Your task to perform on an android device: turn on airplane mode Image 0: 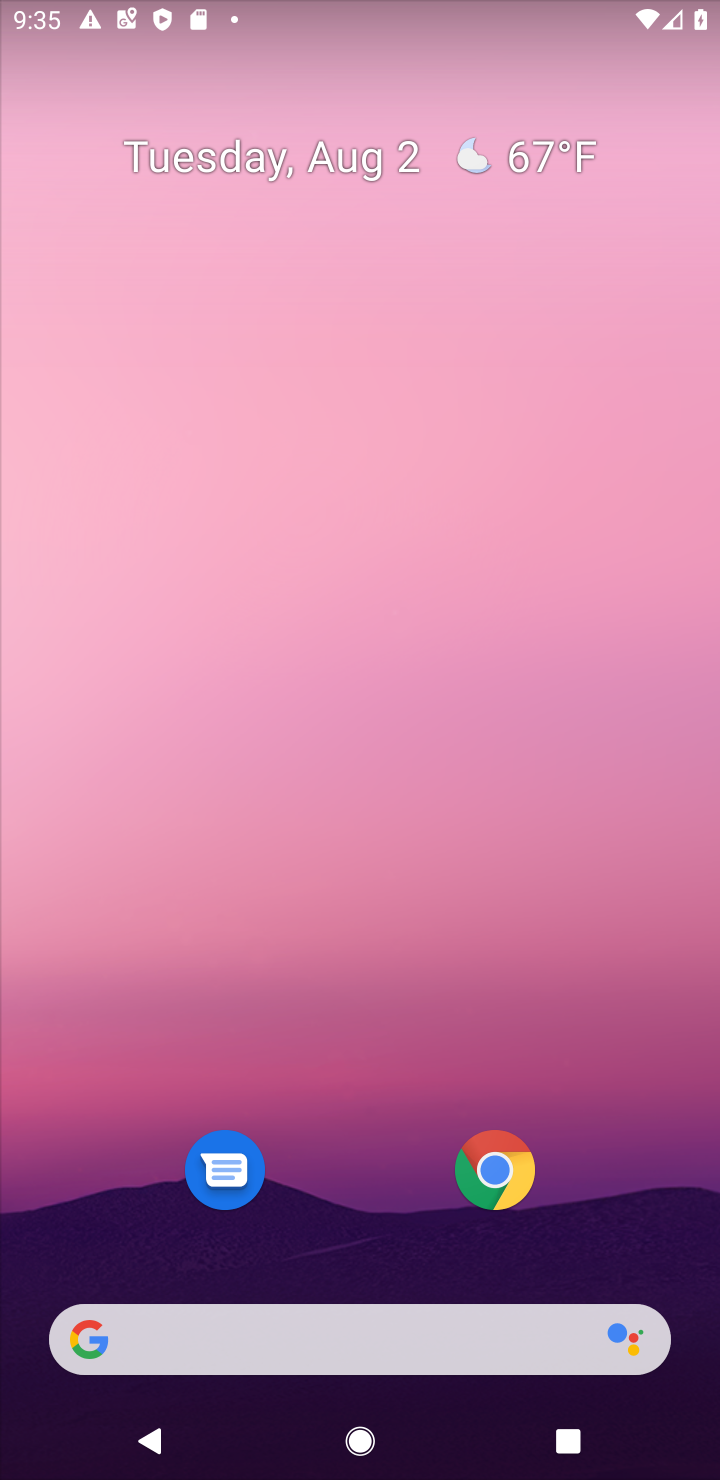
Step 0: drag from (328, 1004) to (328, 693)
Your task to perform on an android device: turn on airplane mode Image 1: 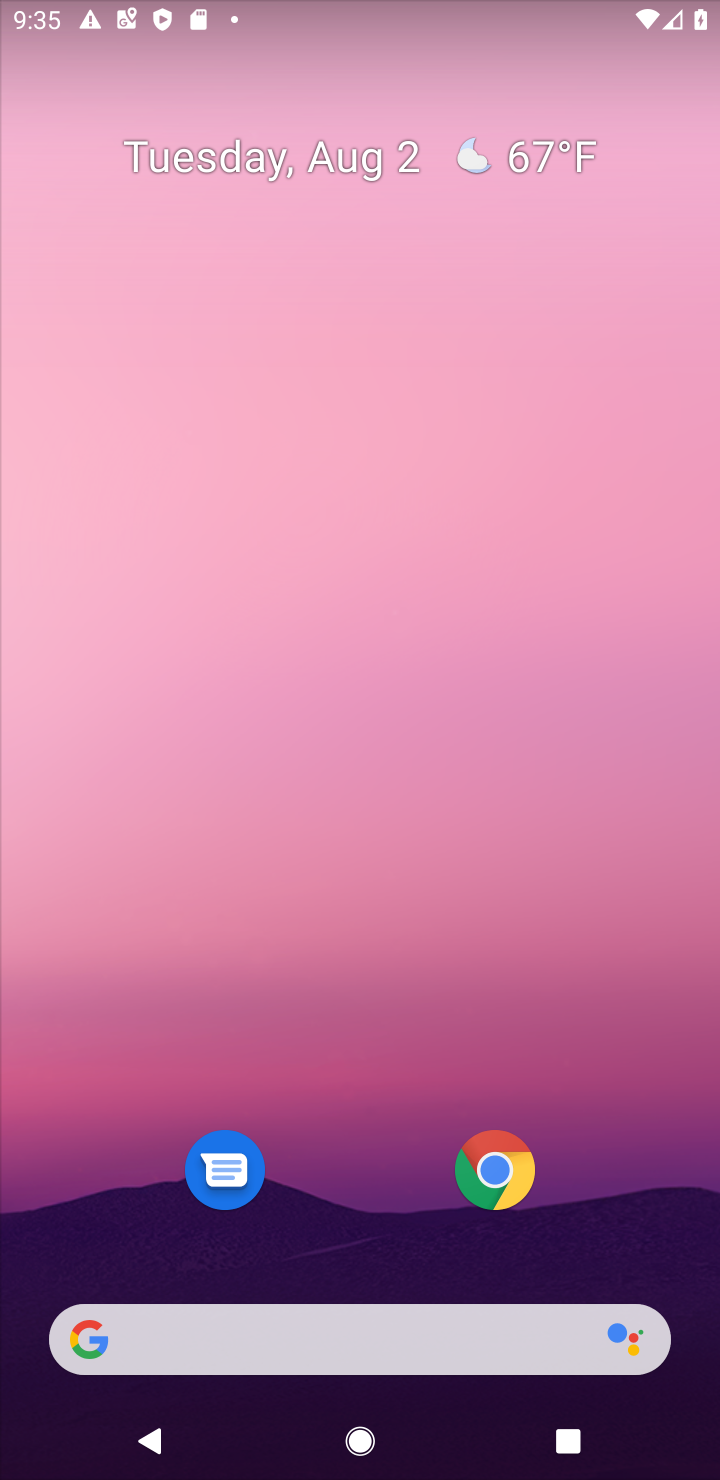
Step 1: drag from (362, 1169) to (369, 12)
Your task to perform on an android device: turn on airplane mode Image 2: 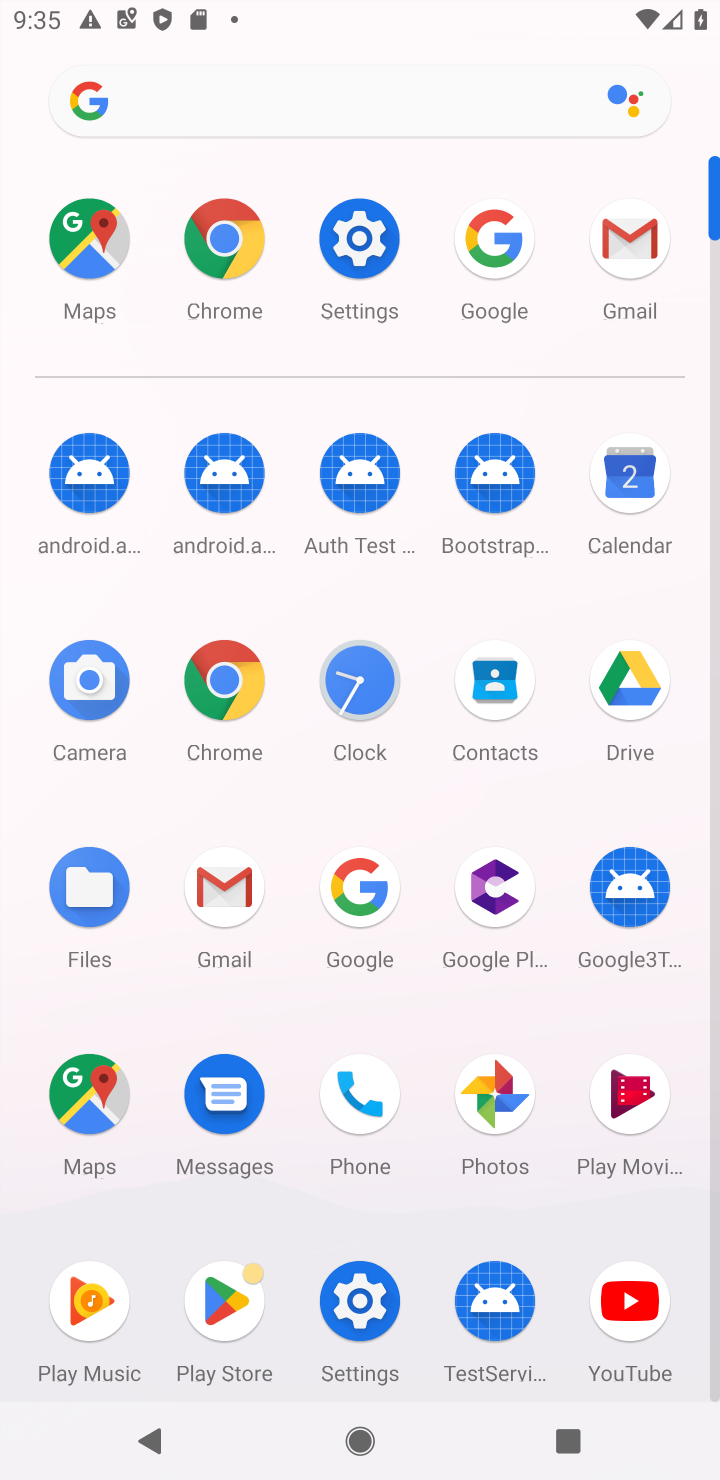
Step 2: click (368, 229)
Your task to perform on an android device: turn on airplane mode Image 3: 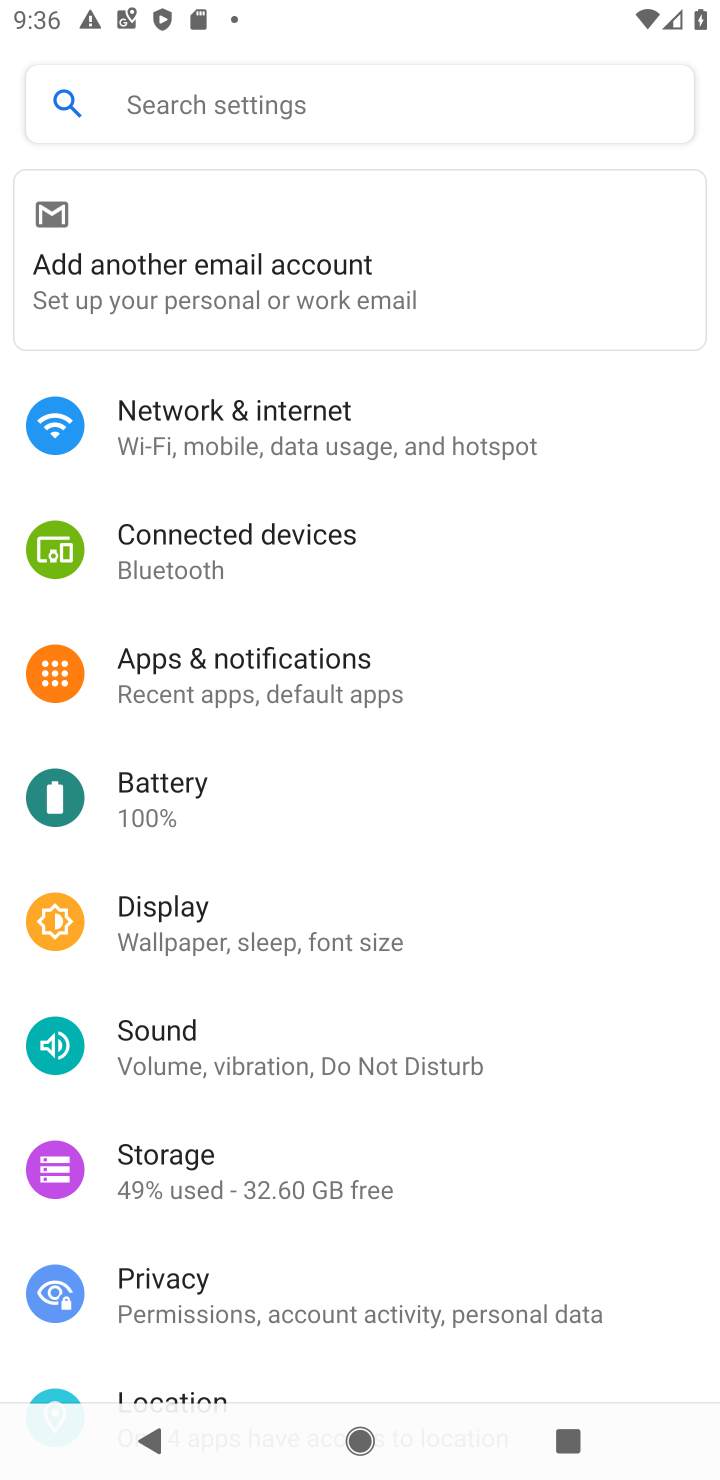
Step 3: click (178, 416)
Your task to perform on an android device: turn on airplane mode Image 4: 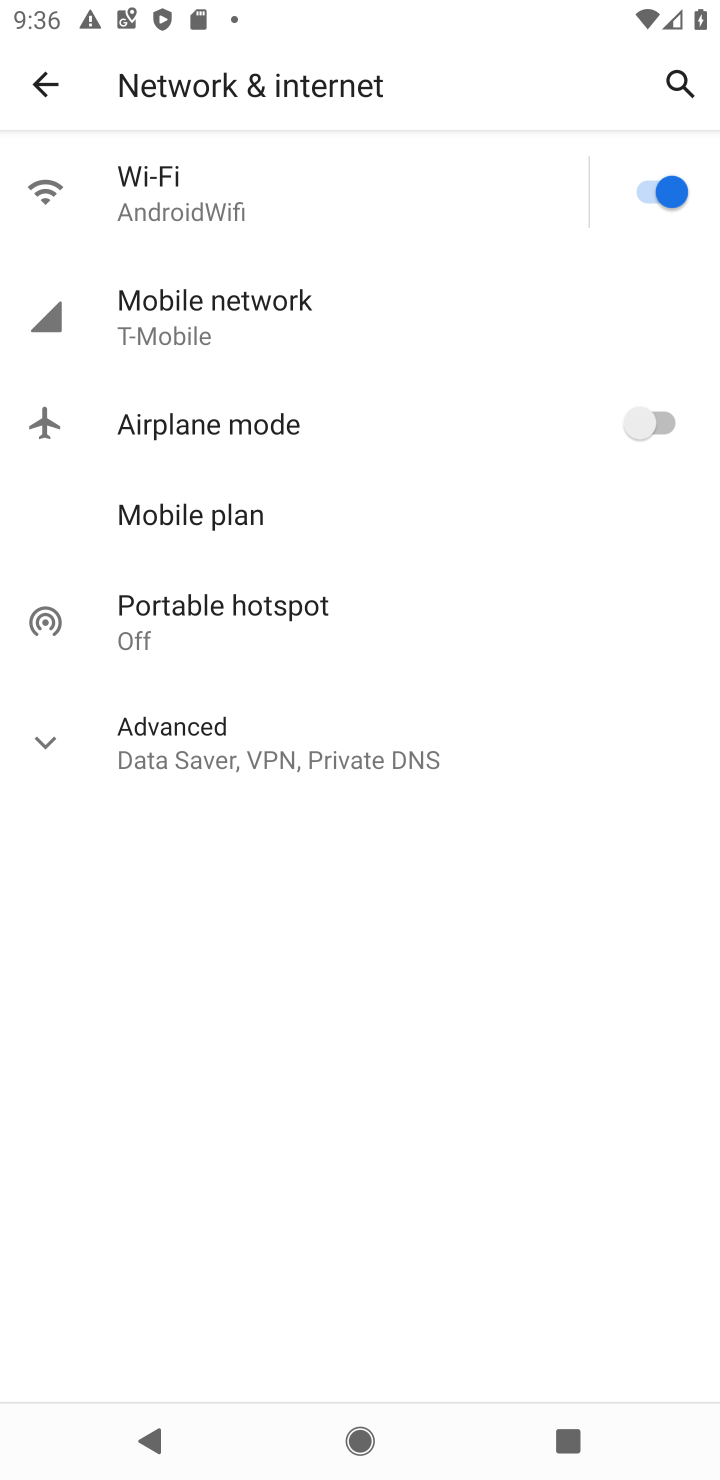
Step 4: click (682, 426)
Your task to perform on an android device: turn on airplane mode Image 5: 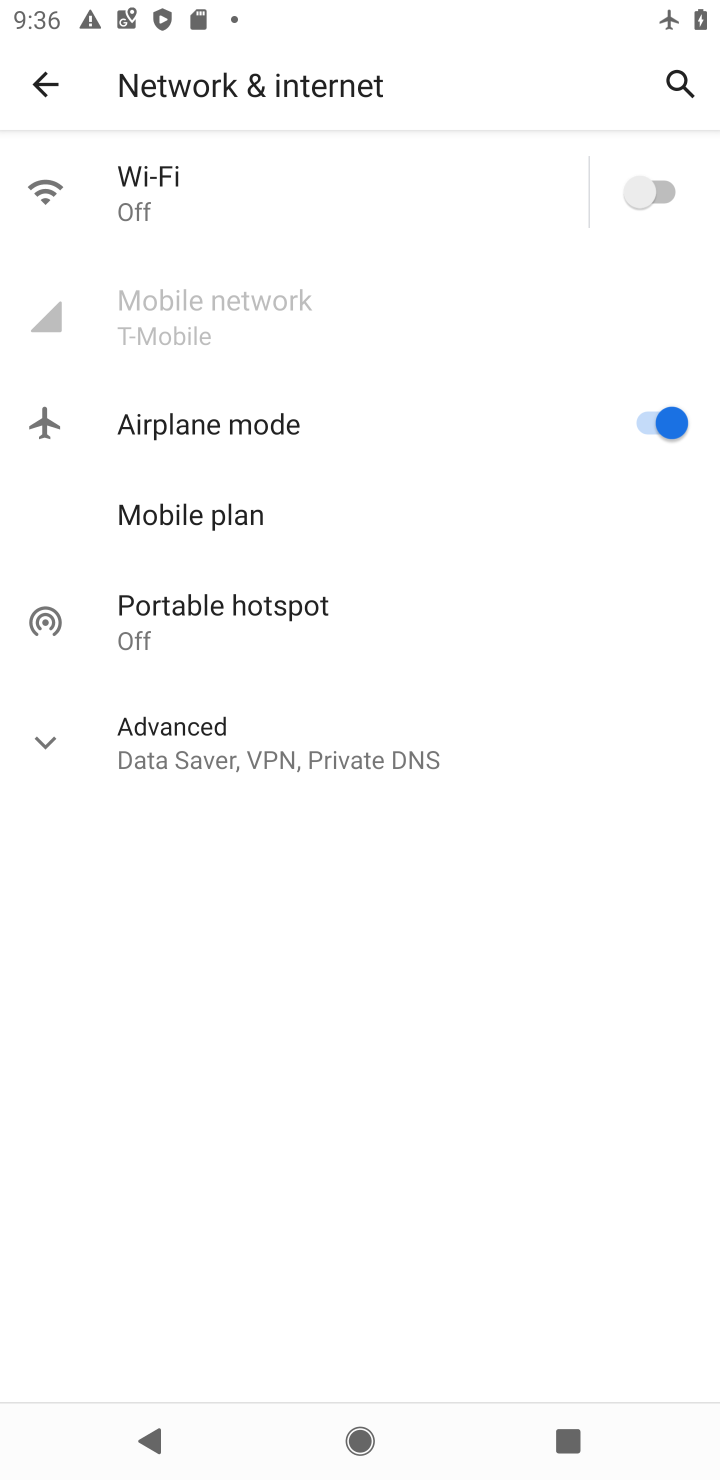
Step 5: task complete